Your task to perform on an android device: turn on bluetooth scan Image 0: 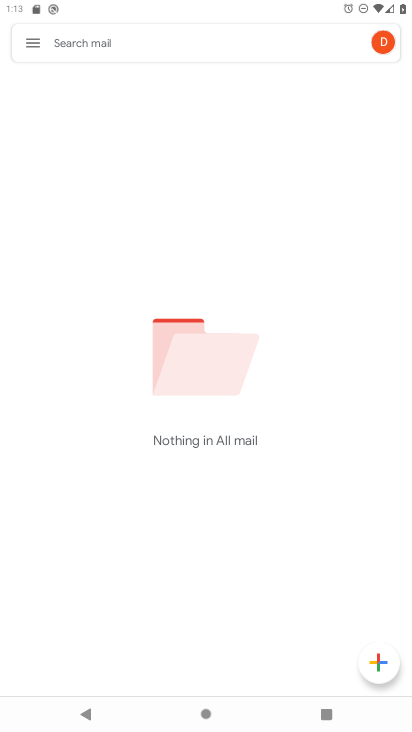
Step 0: press home button
Your task to perform on an android device: turn on bluetooth scan Image 1: 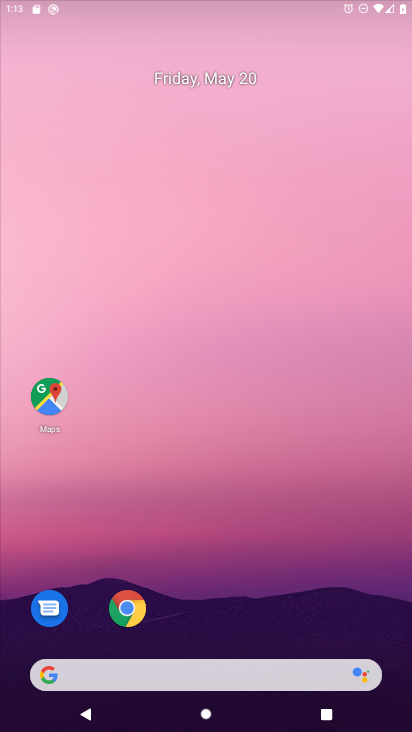
Step 1: drag from (357, 589) to (341, 20)
Your task to perform on an android device: turn on bluetooth scan Image 2: 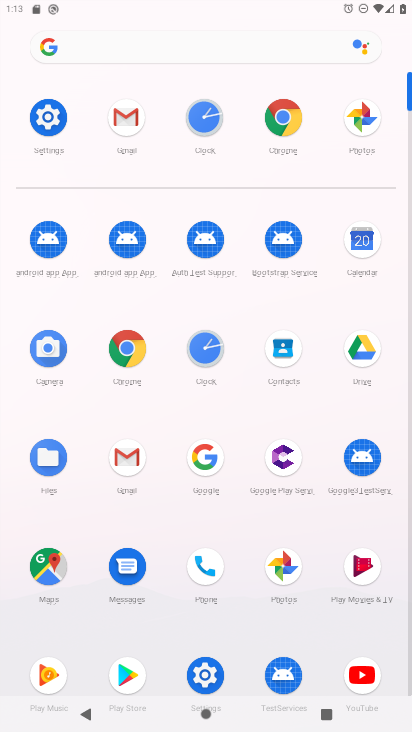
Step 2: click (55, 131)
Your task to perform on an android device: turn on bluetooth scan Image 3: 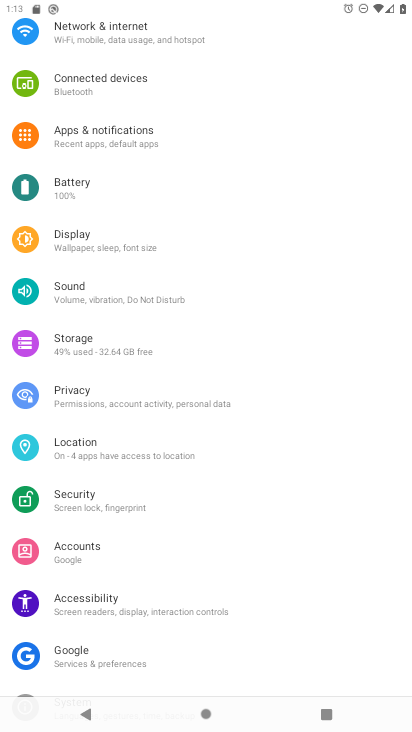
Step 3: drag from (124, 565) to (131, 214)
Your task to perform on an android device: turn on bluetooth scan Image 4: 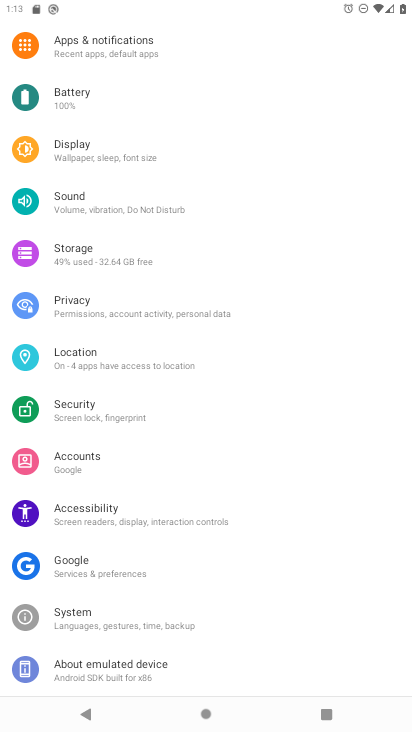
Step 4: click (154, 366)
Your task to perform on an android device: turn on bluetooth scan Image 5: 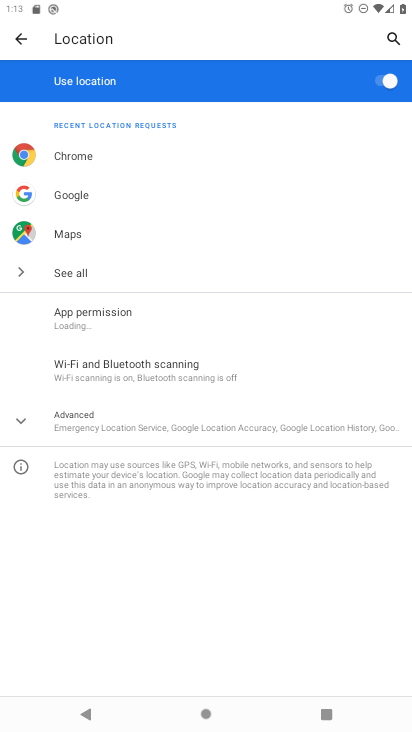
Step 5: click (169, 417)
Your task to perform on an android device: turn on bluetooth scan Image 6: 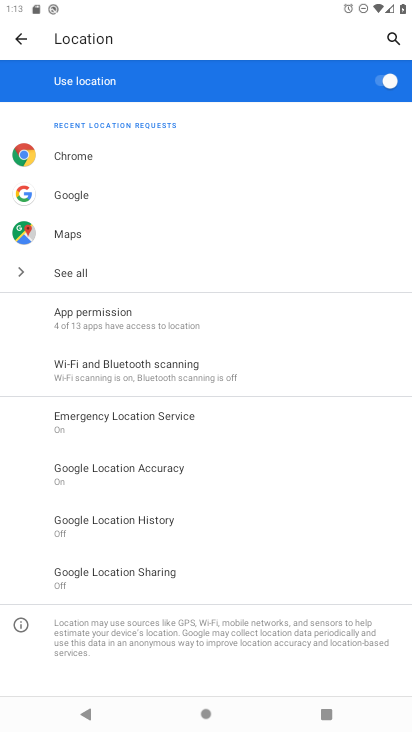
Step 6: click (129, 471)
Your task to perform on an android device: turn on bluetooth scan Image 7: 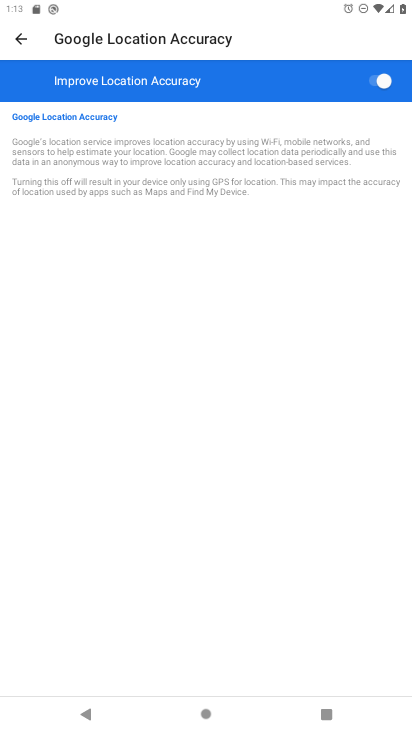
Step 7: click (9, 41)
Your task to perform on an android device: turn on bluetooth scan Image 8: 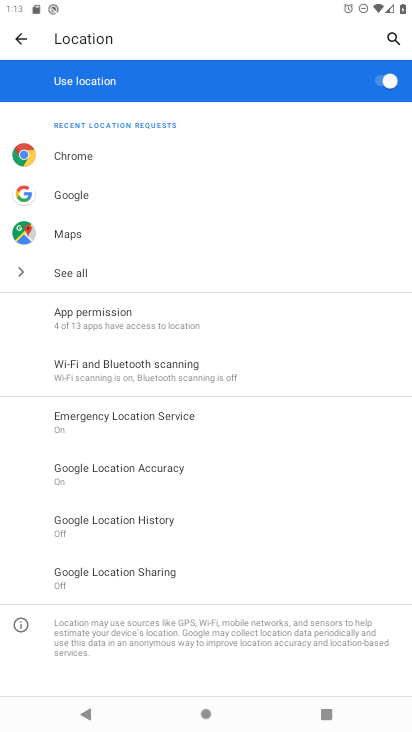
Step 8: click (100, 368)
Your task to perform on an android device: turn on bluetooth scan Image 9: 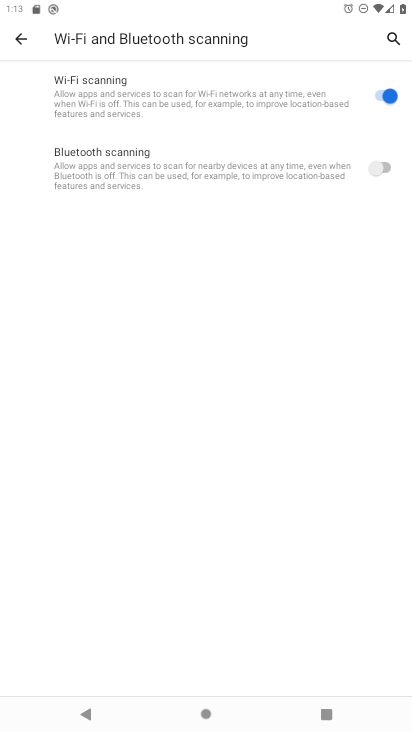
Step 9: click (286, 170)
Your task to perform on an android device: turn on bluetooth scan Image 10: 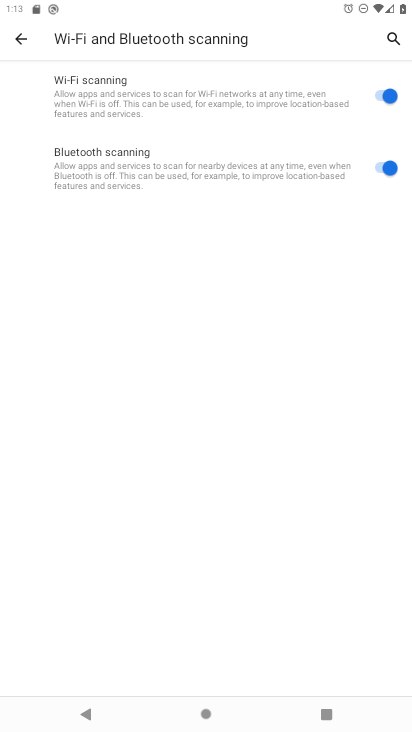
Step 10: task complete